Your task to perform on an android device: find photos in the google photos app Image 0: 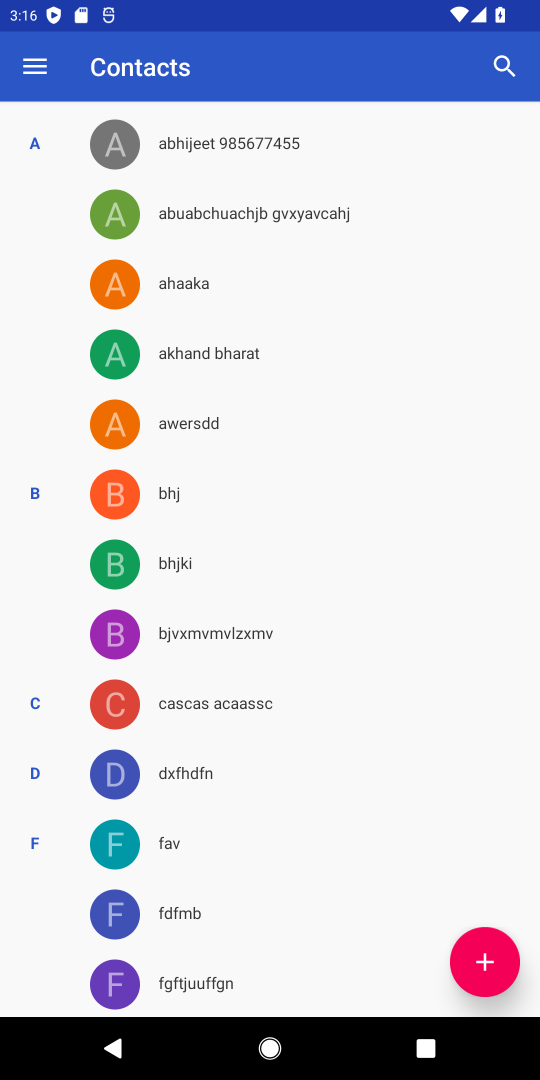
Step 0: press home button
Your task to perform on an android device: find photos in the google photos app Image 1: 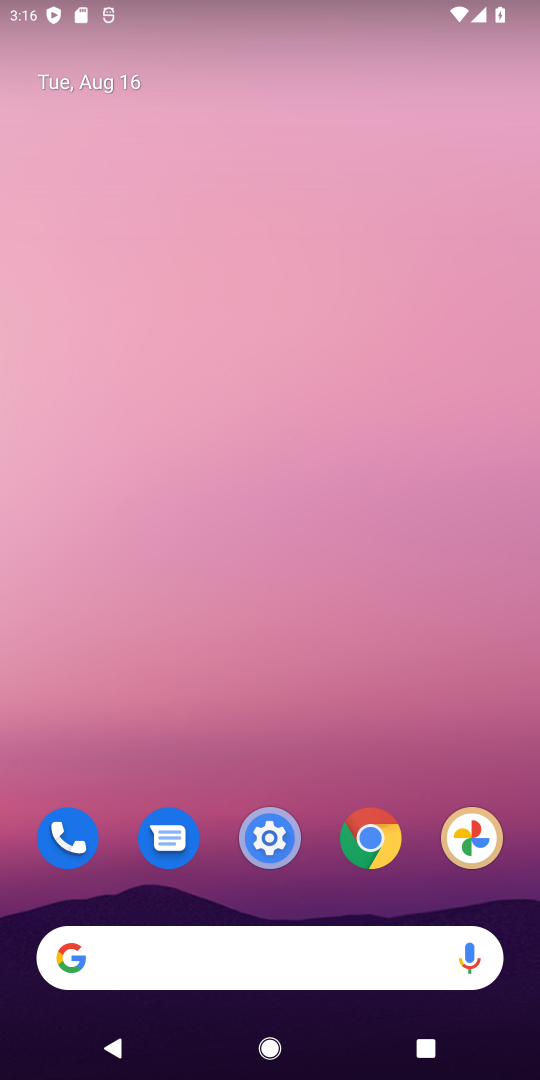
Step 1: click (490, 847)
Your task to perform on an android device: find photos in the google photos app Image 2: 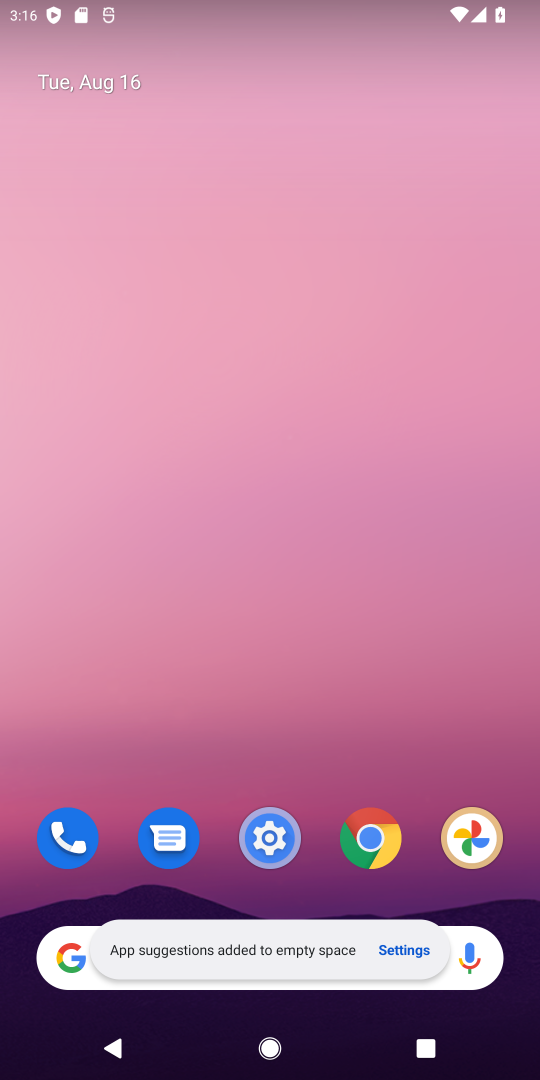
Step 2: click (460, 840)
Your task to perform on an android device: find photos in the google photos app Image 3: 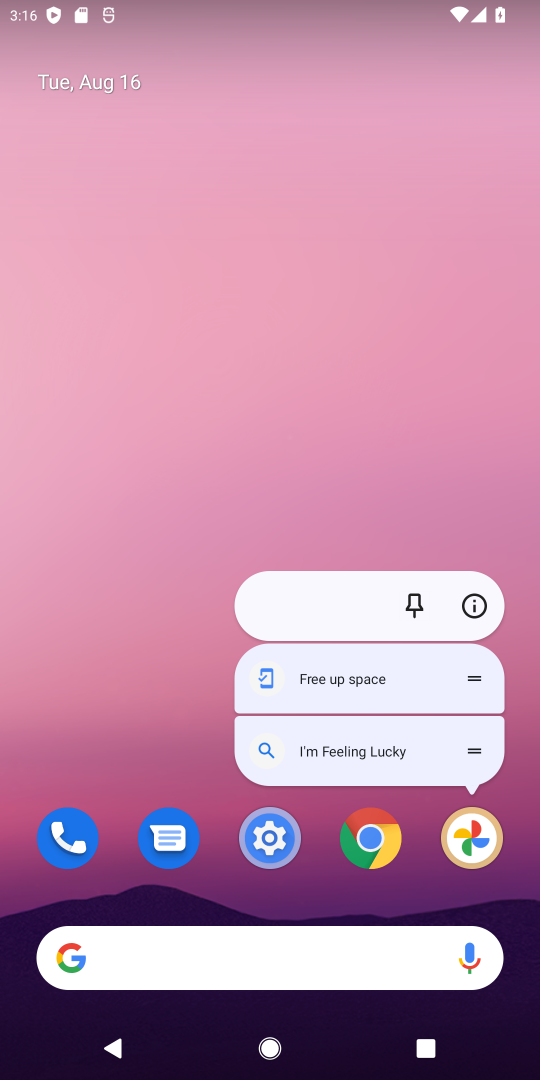
Step 3: click (445, 847)
Your task to perform on an android device: find photos in the google photos app Image 4: 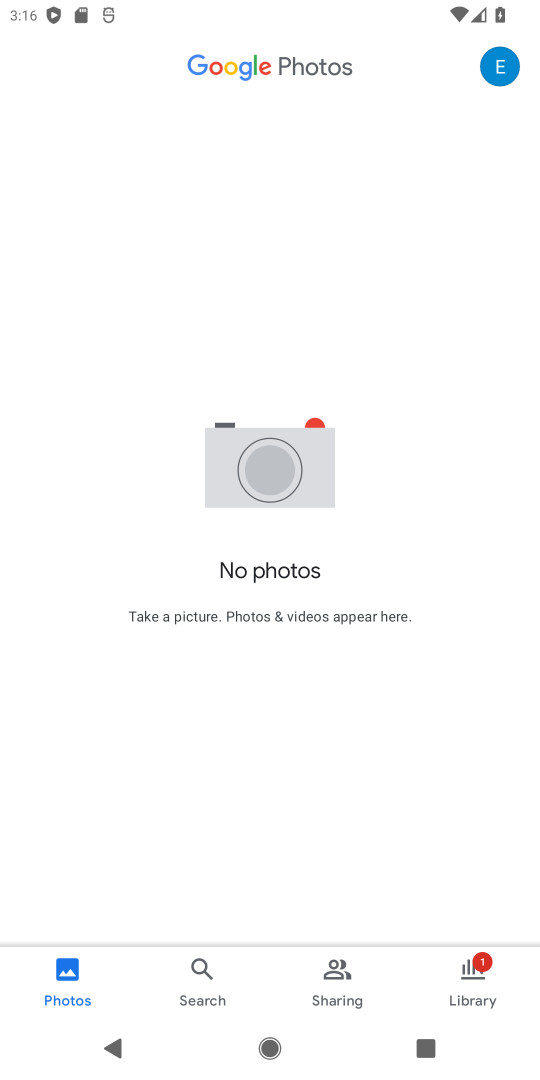
Step 4: task complete